Your task to perform on an android device: change notifications settings Image 0: 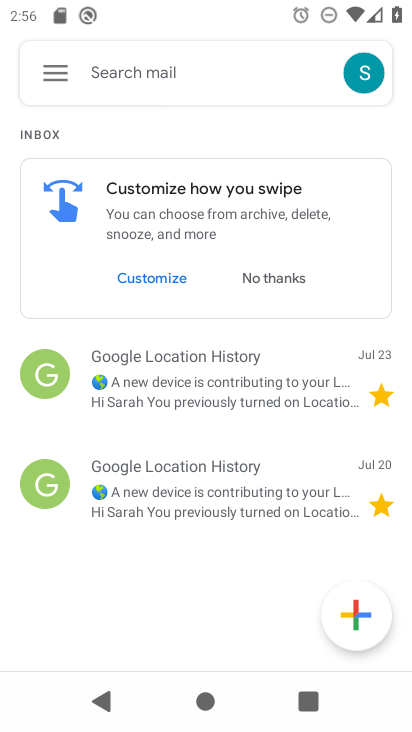
Step 0: press home button
Your task to perform on an android device: change notifications settings Image 1: 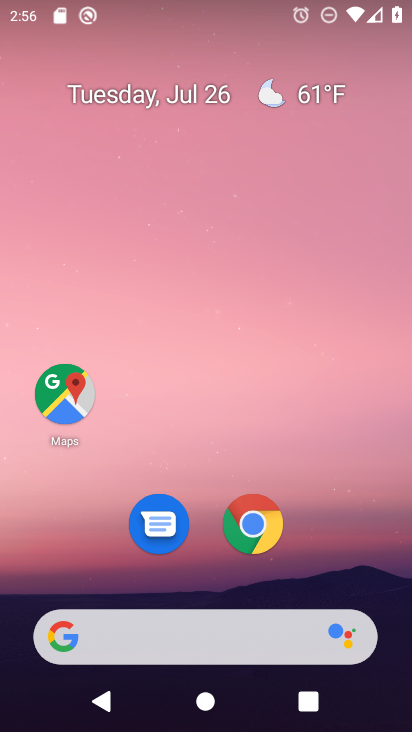
Step 1: drag from (212, 642) to (318, 2)
Your task to perform on an android device: change notifications settings Image 2: 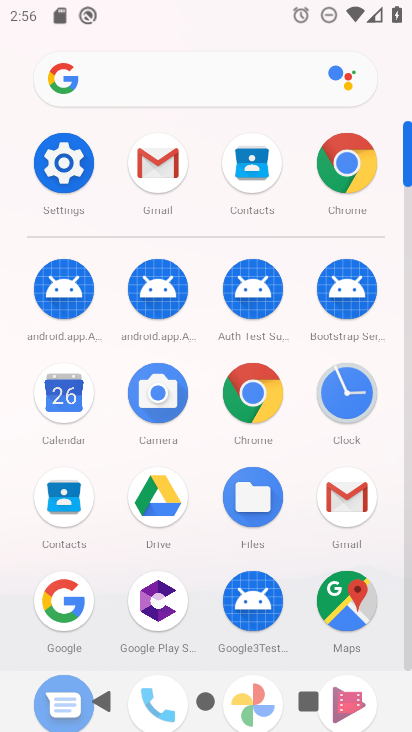
Step 2: click (60, 172)
Your task to perform on an android device: change notifications settings Image 3: 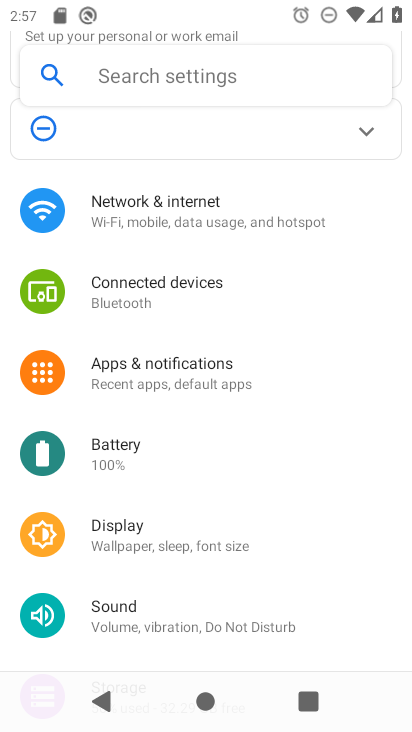
Step 3: click (200, 356)
Your task to perform on an android device: change notifications settings Image 4: 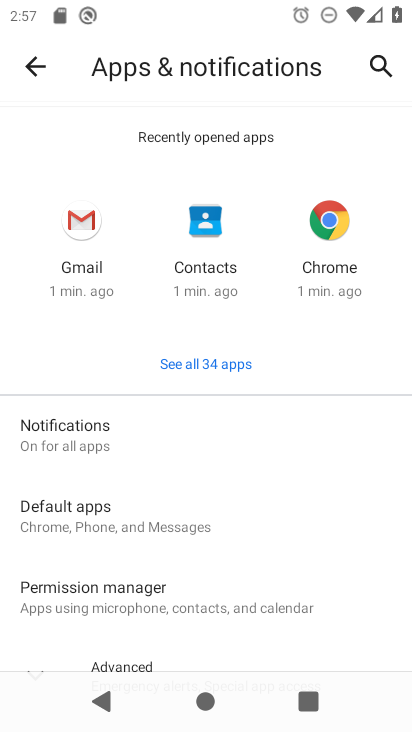
Step 4: click (82, 429)
Your task to perform on an android device: change notifications settings Image 5: 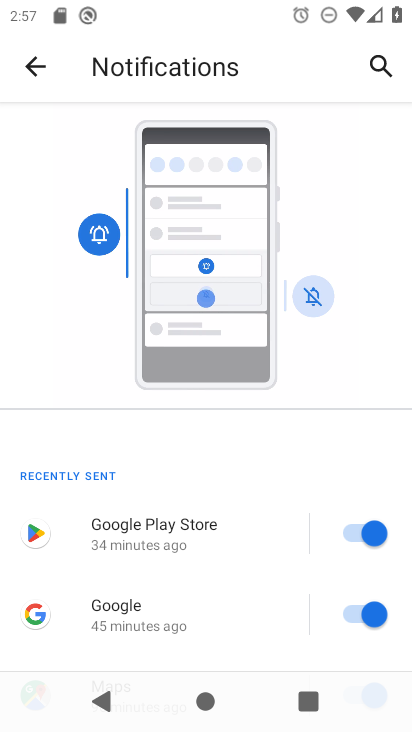
Step 5: task complete